Your task to perform on an android device: turn off notifications in google photos Image 0: 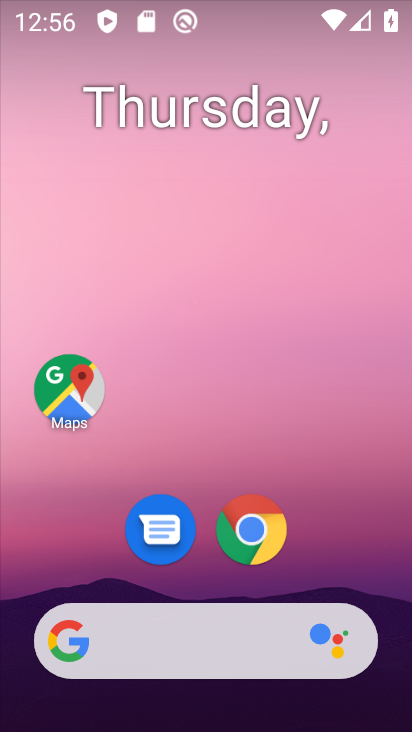
Step 0: drag from (390, 568) to (388, 82)
Your task to perform on an android device: turn off notifications in google photos Image 1: 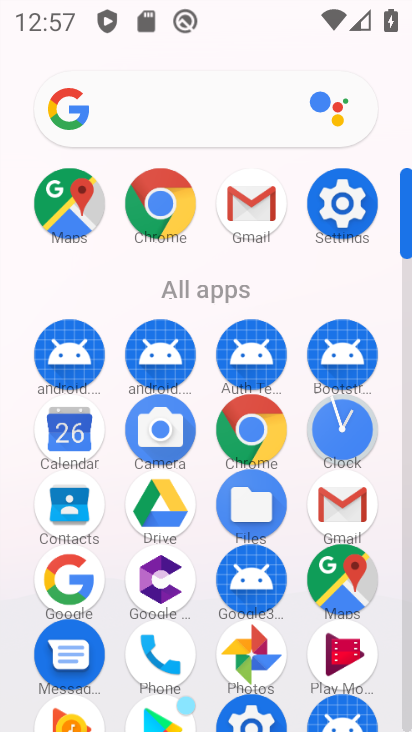
Step 1: drag from (206, 668) to (214, 394)
Your task to perform on an android device: turn off notifications in google photos Image 2: 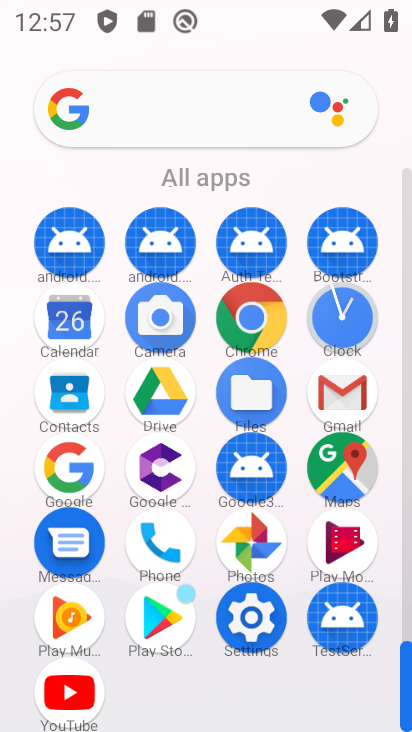
Step 2: click (256, 557)
Your task to perform on an android device: turn off notifications in google photos Image 3: 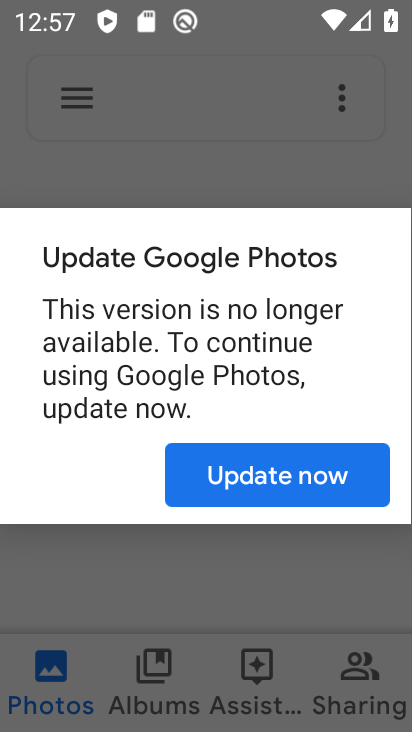
Step 3: click (72, 95)
Your task to perform on an android device: turn off notifications in google photos Image 4: 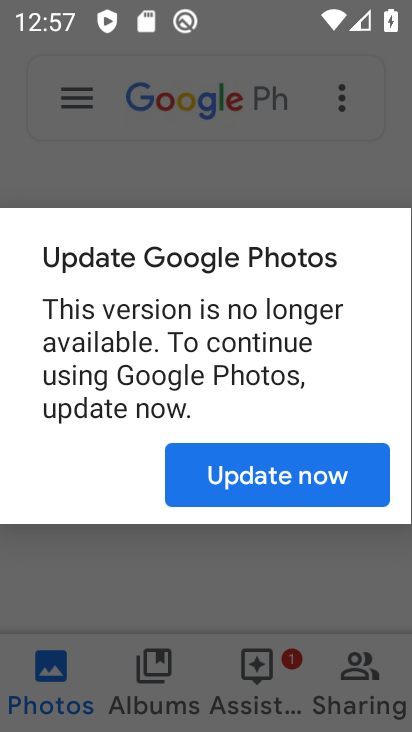
Step 4: click (274, 472)
Your task to perform on an android device: turn off notifications in google photos Image 5: 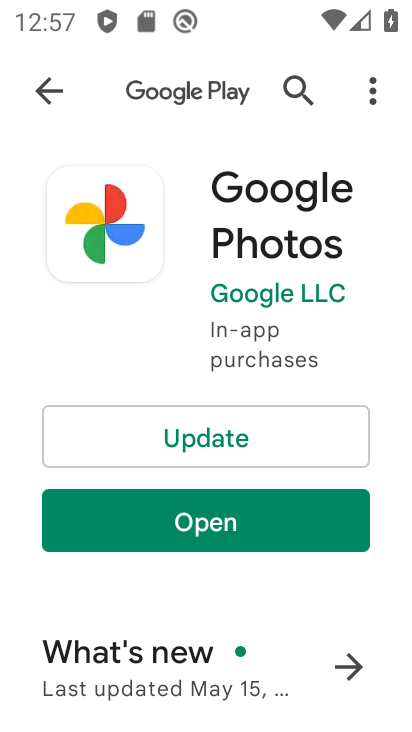
Step 5: click (252, 429)
Your task to perform on an android device: turn off notifications in google photos Image 6: 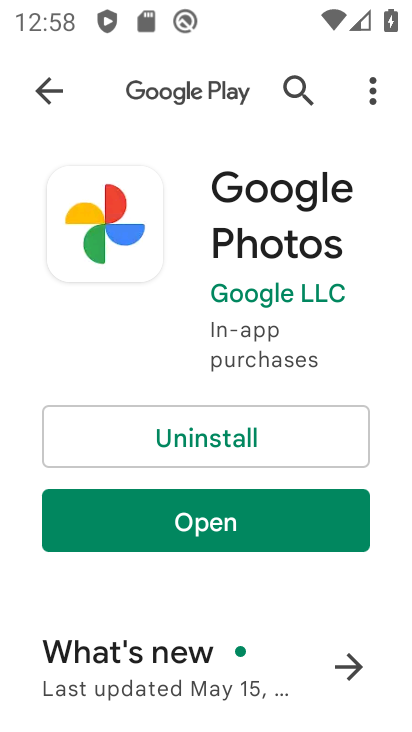
Step 6: click (265, 513)
Your task to perform on an android device: turn off notifications in google photos Image 7: 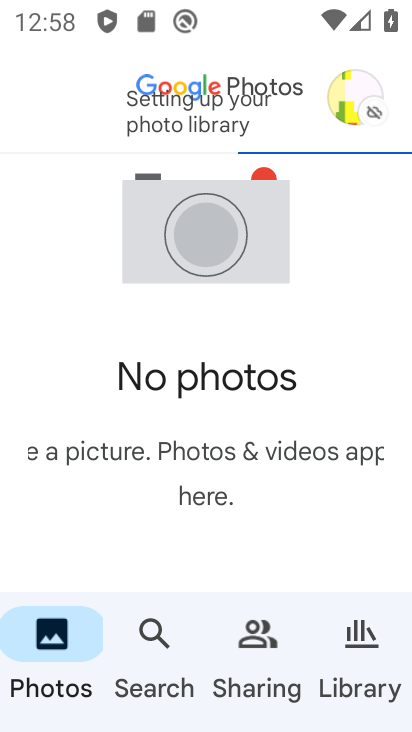
Step 7: click (359, 89)
Your task to perform on an android device: turn off notifications in google photos Image 8: 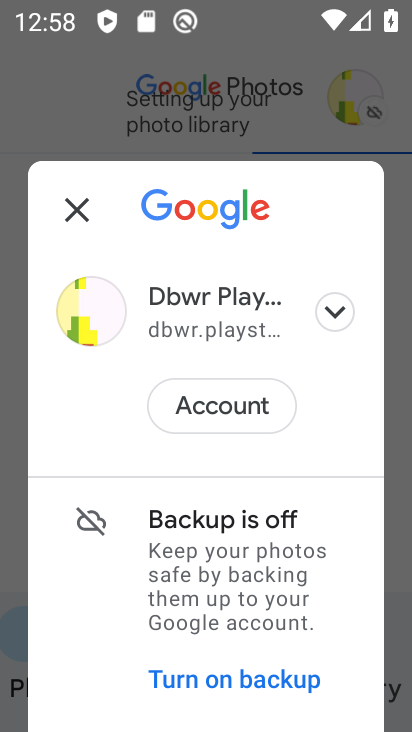
Step 8: drag from (280, 601) to (281, 260)
Your task to perform on an android device: turn off notifications in google photos Image 9: 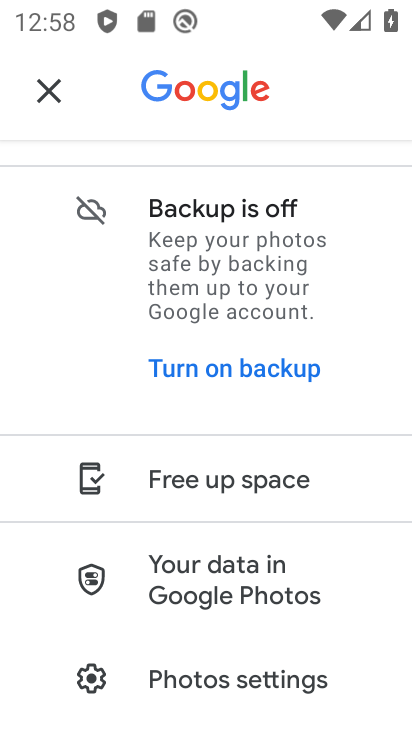
Step 9: click (252, 672)
Your task to perform on an android device: turn off notifications in google photos Image 10: 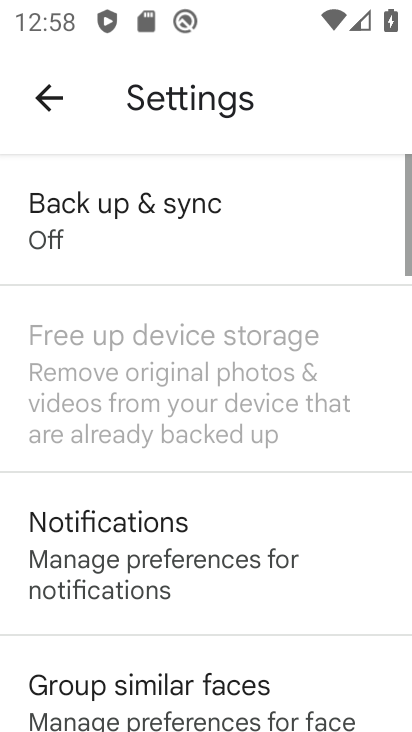
Step 10: click (224, 602)
Your task to perform on an android device: turn off notifications in google photos Image 11: 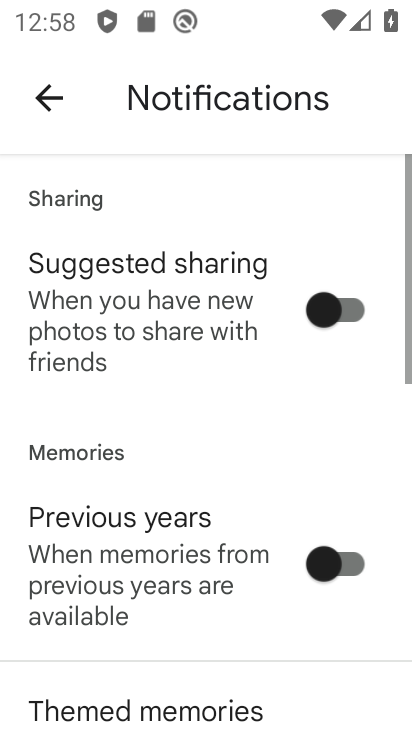
Step 11: drag from (205, 667) to (210, 209)
Your task to perform on an android device: turn off notifications in google photos Image 12: 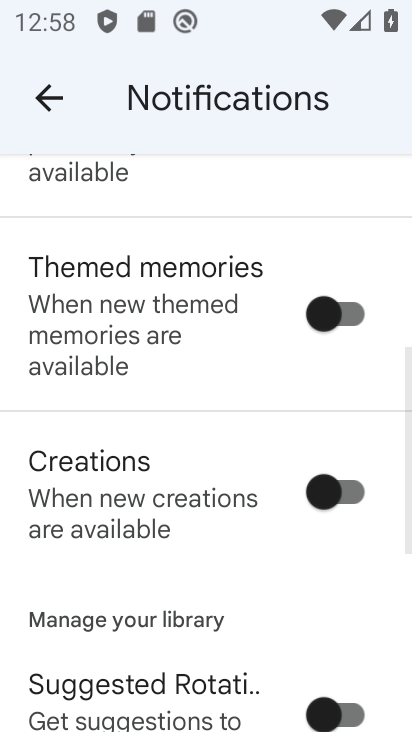
Step 12: drag from (219, 673) to (242, 325)
Your task to perform on an android device: turn off notifications in google photos Image 13: 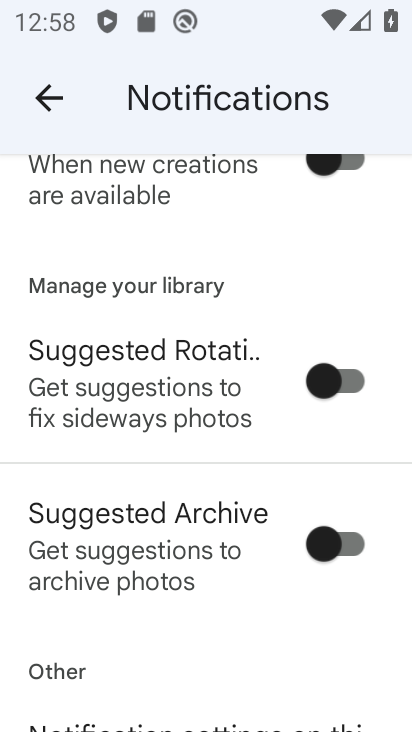
Step 13: drag from (197, 671) to (249, 243)
Your task to perform on an android device: turn off notifications in google photos Image 14: 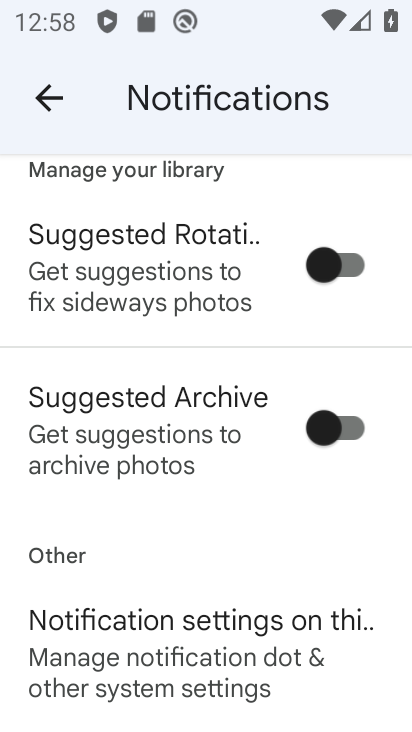
Step 14: click (204, 661)
Your task to perform on an android device: turn off notifications in google photos Image 15: 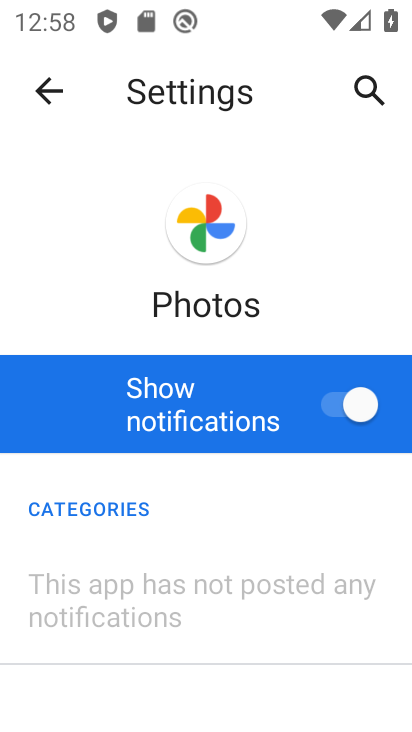
Step 15: click (343, 406)
Your task to perform on an android device: turn off notifications in google photos Image 16: 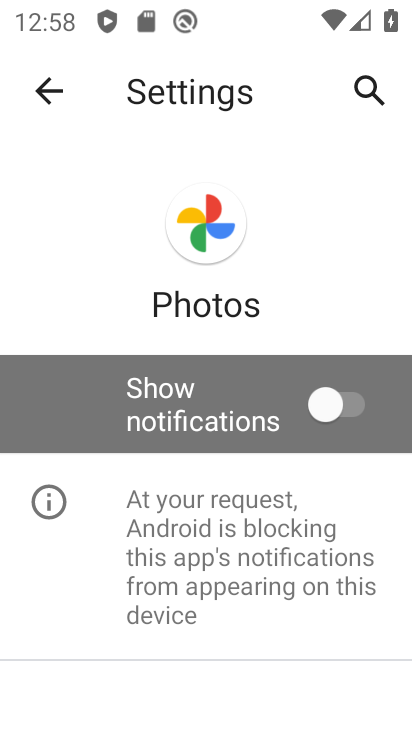
Step 16: task complete